Your task to perform on an android device: turn off improve location accuracy Image 0: 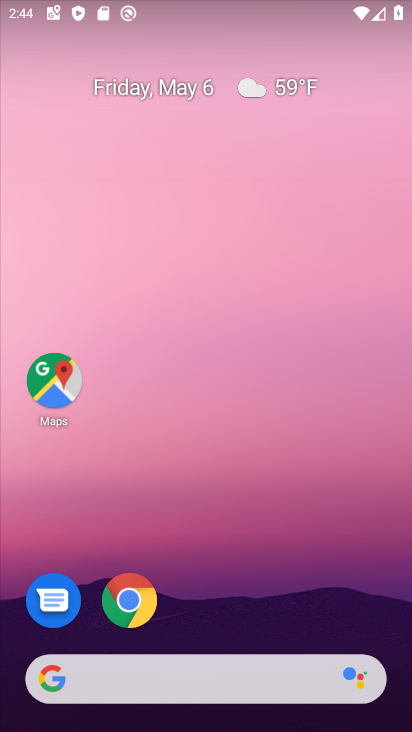
Step 0: drag from (227, 573) to (264, 55)
Your task to perform on an android device: turn off improve location accuracy Image 1: 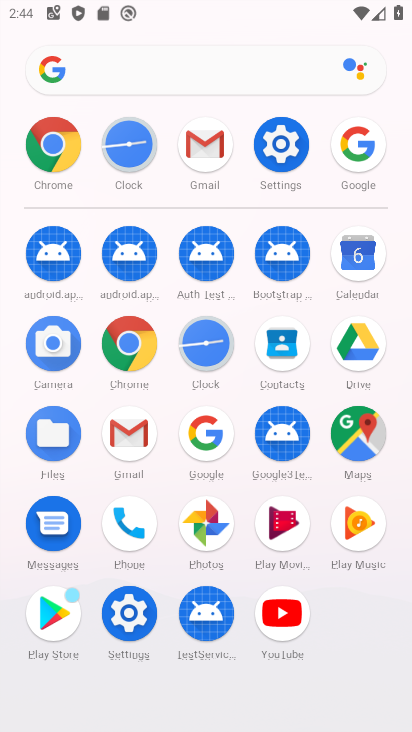
Step 1: click (277, 147)
Your task to perform on an android device: turn off improve location accuracy Image 2: 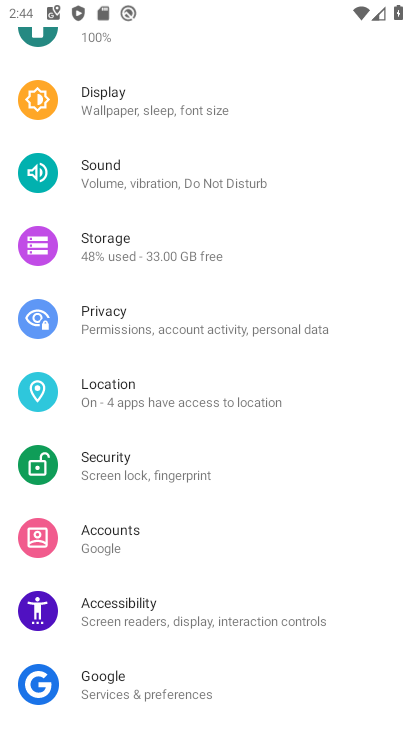
Step 2: click (138, 392)
Your task to perform on an android device: turn off improve location accuracy Image 3: 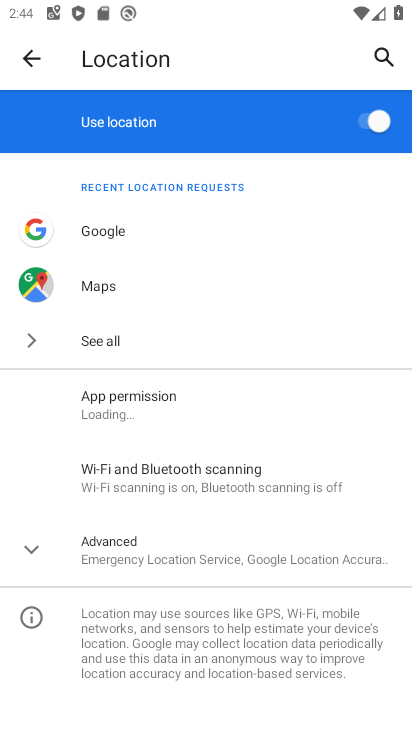
Step 3: click (170, 547)
Your task to perform on an android device: turn off improve location accuracy Image 4: 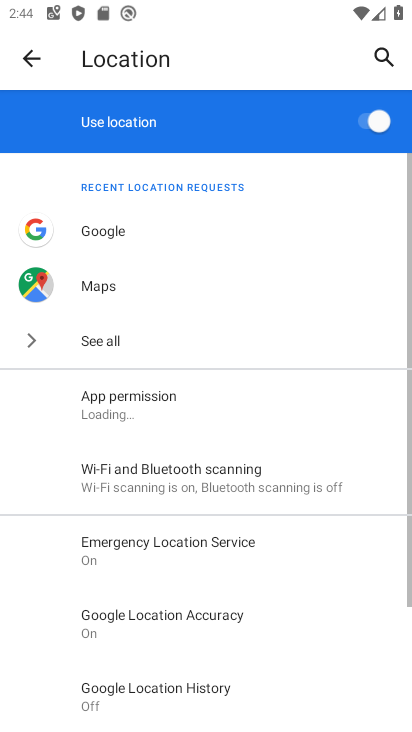
Step 4: drag from (257, 492) to (252, 162)
Your task to perform on an android device: turn off improve location accuracy Image 5: 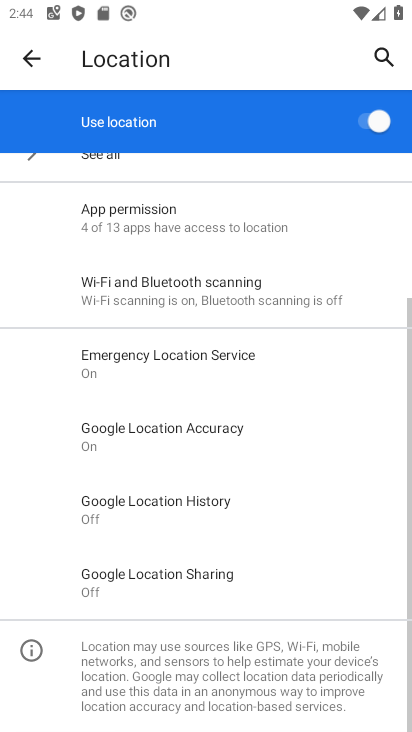
Step 5: click (164, 432)
Your task to perform on an android device: turn off improve location accuracy Image 6: 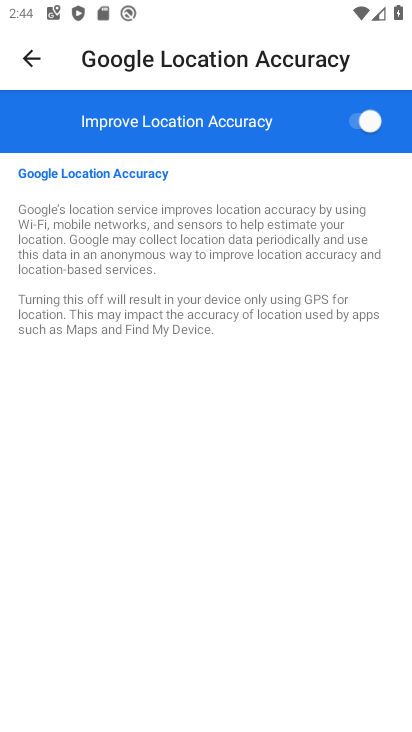
Step 6: click (370, 130)
Your task to perform on an android device: turn off improve location accuracy Image 7: 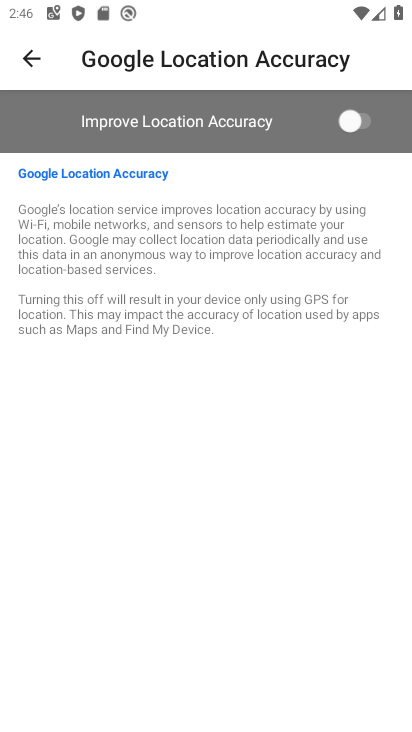
Step 7: task complete